Your task to perform on an android device: Search for Italian restaurants on Maps Image 0: 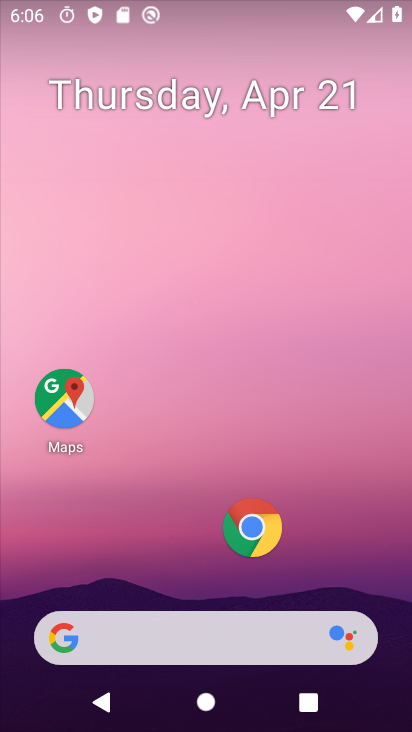
Step 0: click (60, 400)
Your task to perform on an android device: Search for Italian restaurants on Maps Image 1: 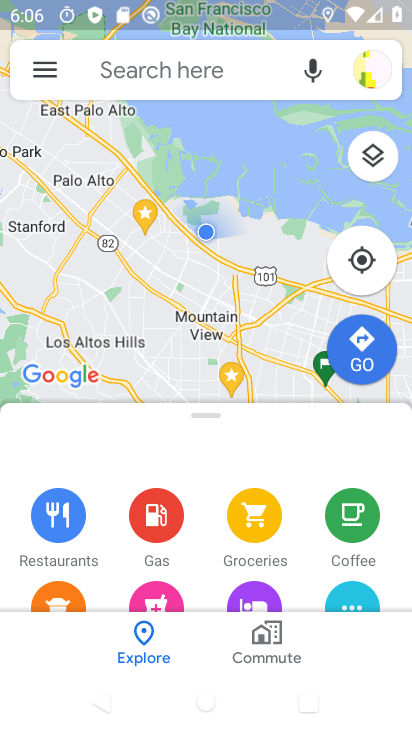
Step 1: click (161, 84)
Your task to perform on an android device: Search for Italian restaurants on Maps Image 2: 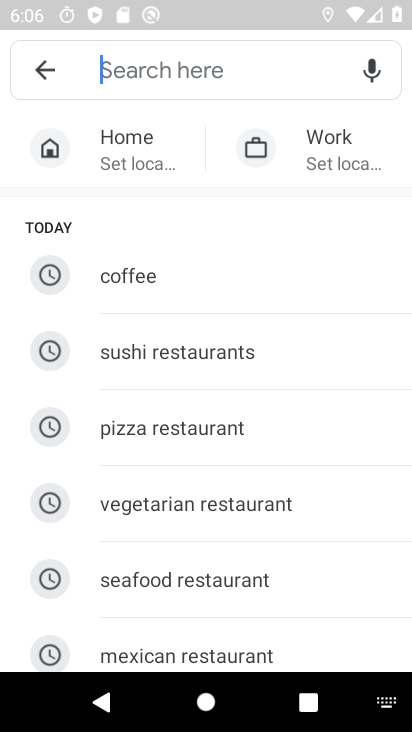
Step 2: drag from (163, 583) to (304, 130)
Your task to perform on an android device: Search for Italian restaurants on Maps Image 3: 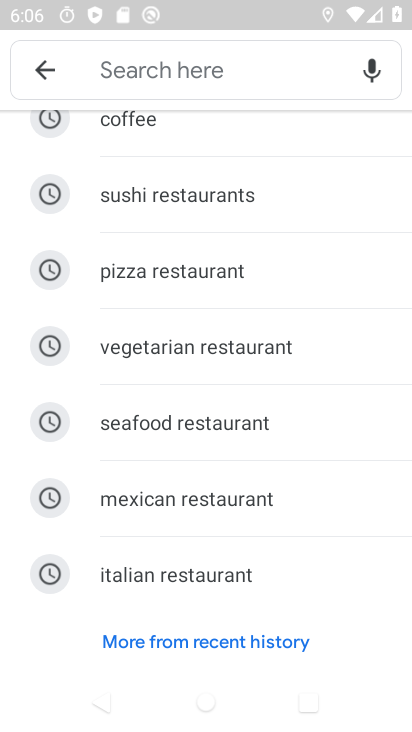
Step 3: click (156, 573)
Your task to perform on an android device: Search for Italian restaurants on Maps Image 4: 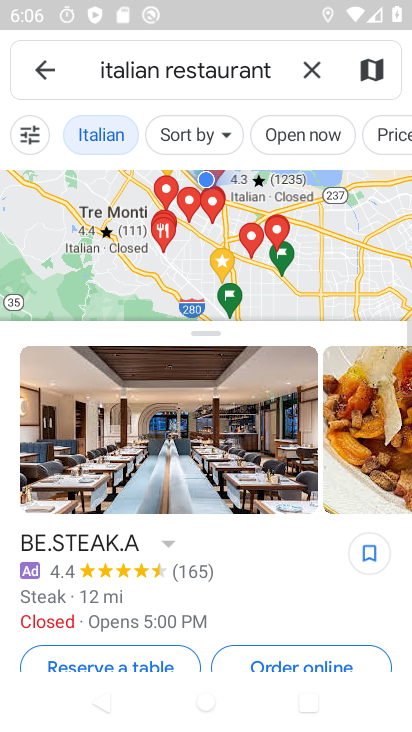
Step 4: task complete